Your task to perform on an android device: Toggle the flashlight Image 0: 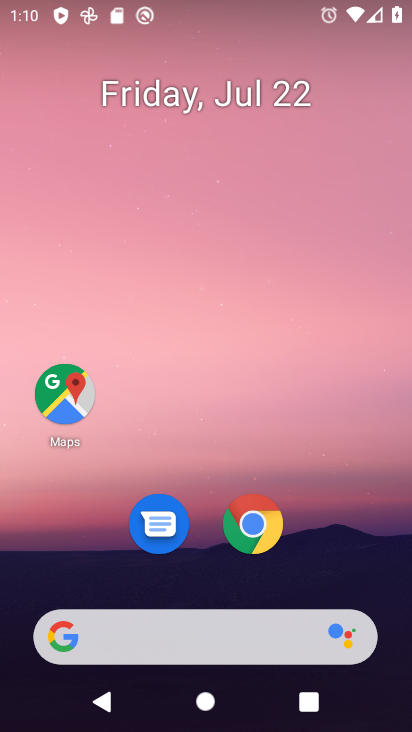
Step 0: drag from (248, 8) to (215, 387)
Your task to perform on an android device: Toggle the flashlight Image 1: 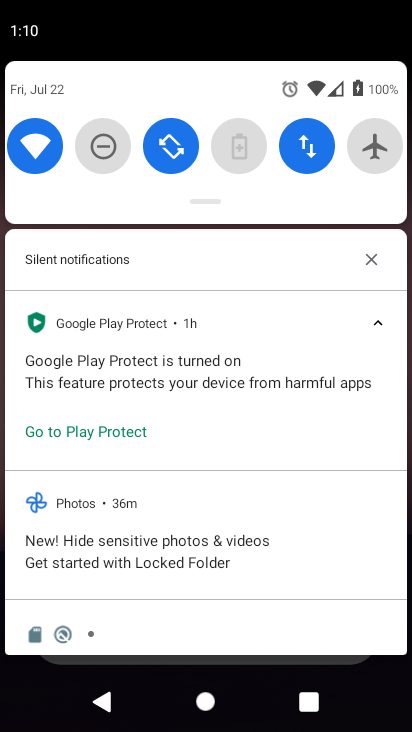
Step 1: task complete